Your task to perform on an android device: Go to settings Image 0: 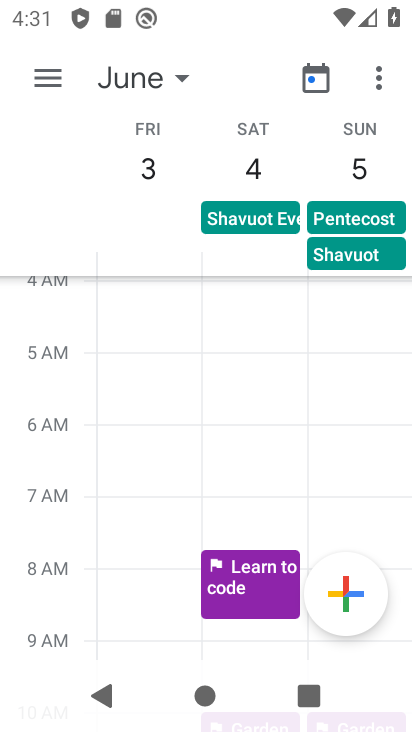
Step 0: press home button
Your task to perform on an android device: Go to settings Image 1: 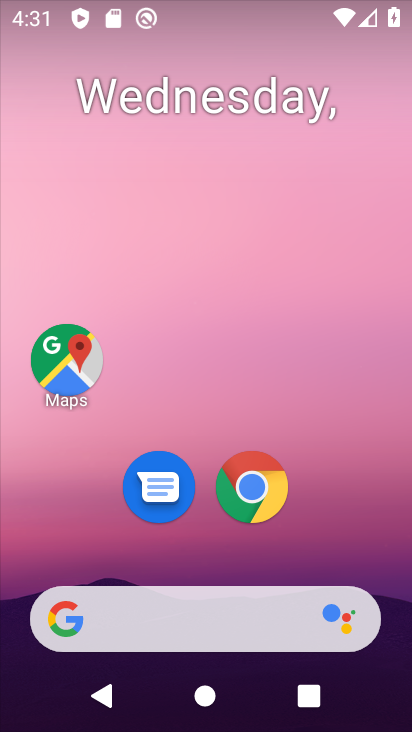
Step 1: drag from (226, 543) to (217, 1)
Your task to perform on an android device: Go to settings Image 2: 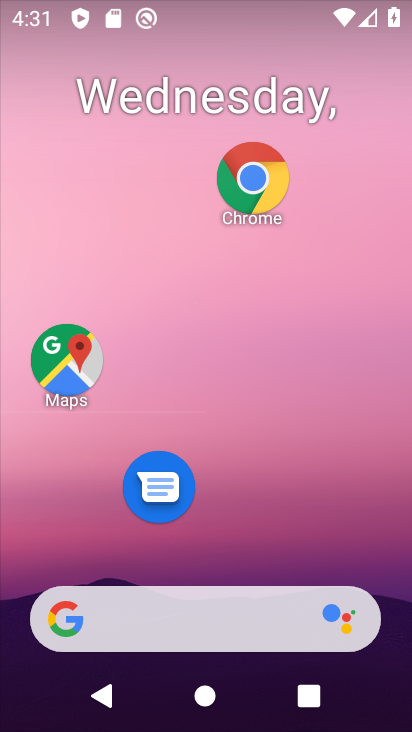
Step 2: click (318, 492)
Your task to perform on an android device: Go to settings Image 3: 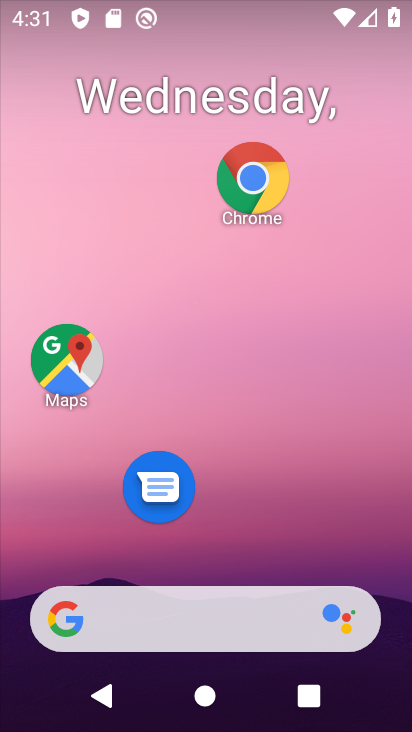
Step 3: drag from (276, 419) to (234, 12)
Your task to perform on an android device: Go to settings Image 4: 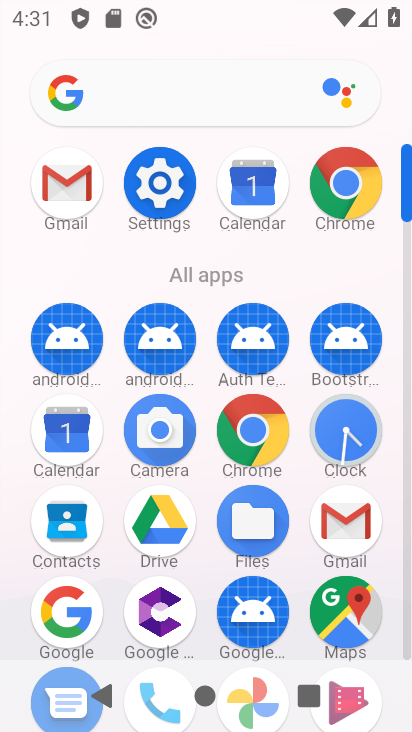
Step 4: click (183, 205)
Your task to perform on an android device: Go to settings Image 5: 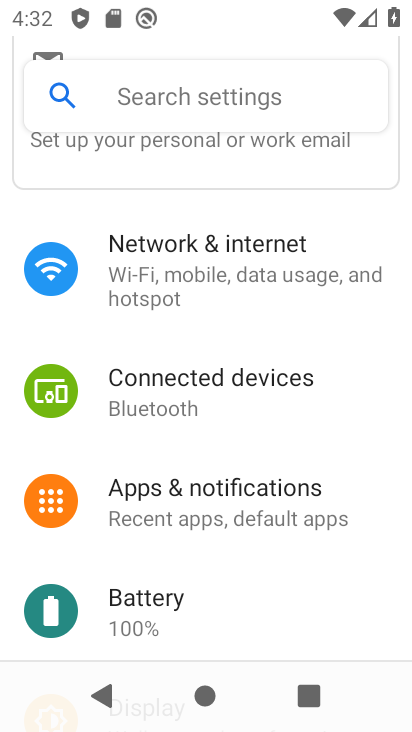
Step 5: task complete